Your task to perform on an android device: Search for Mexican restaurants on Maps Image 0: 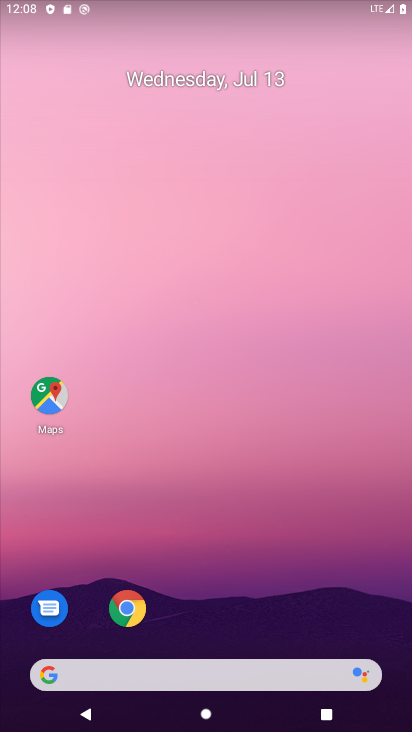
Step 0: click (44, 391)
Your task to perform on an android device: Search for Mexican restaurants on Maps Image 1: 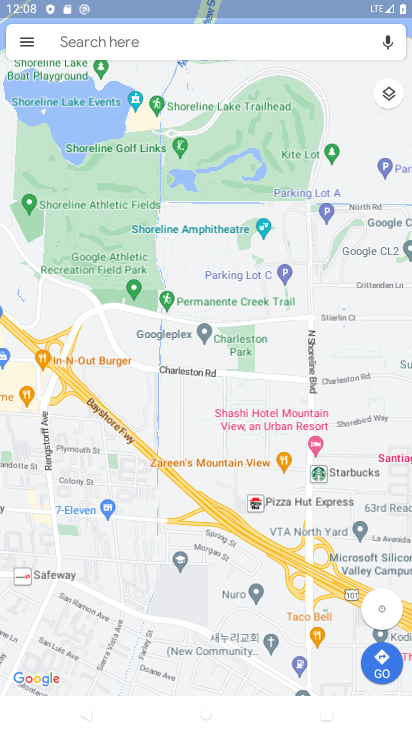
Step 1: click (106, 40)
Your task to perform on an android device: Search for Mexican restaurants on Maps Image 2: 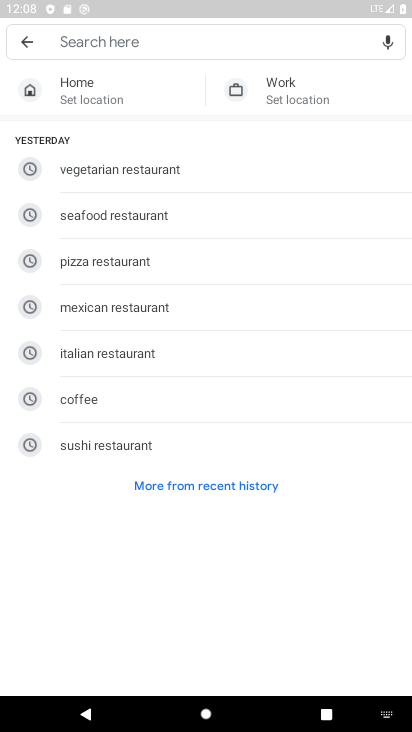
Step 2: click (103, 293)
Your task to perform on an android device: Search for Mexican restaurants on Maps Image 3: 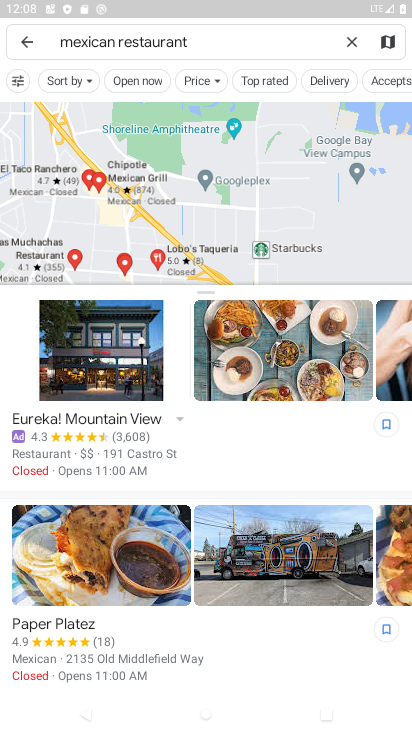
Step 3: task complete